Your task to perform on an android device: turn off wifi Image 0: 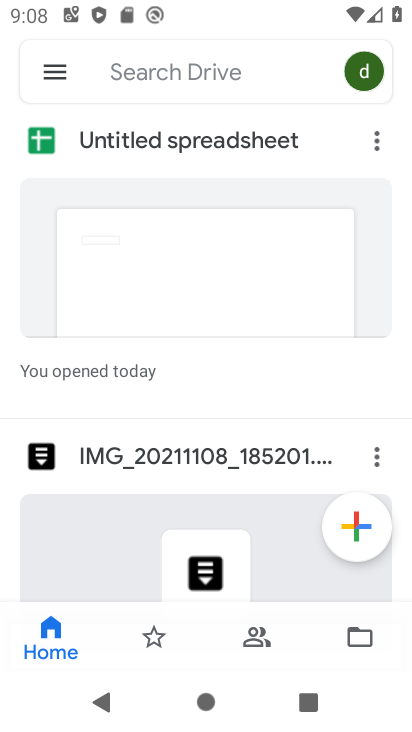
Step 0: press home button
Your task to perform on an android device: turn off wifi Image 1: 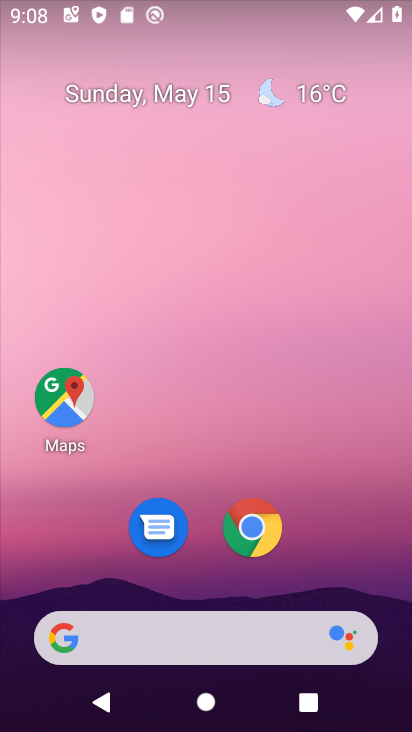
Step 1: drag from (372, 593) to (340, 14)
Your task to perform on an android device: turn off wifi Image 2: 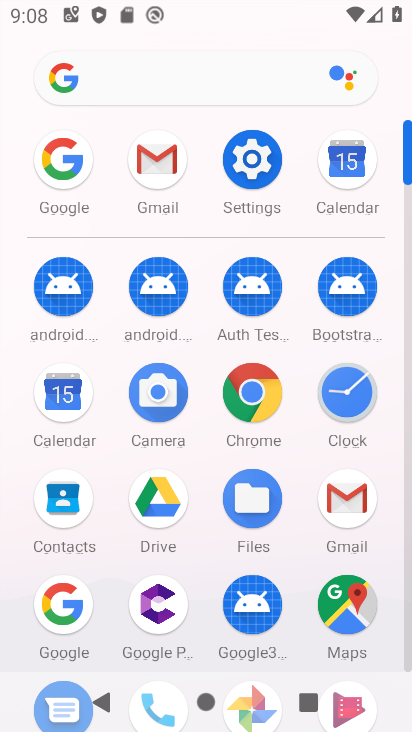
Step 2: click (246, 160)
Your task to perform on an android device: turn off wifi Image 3: 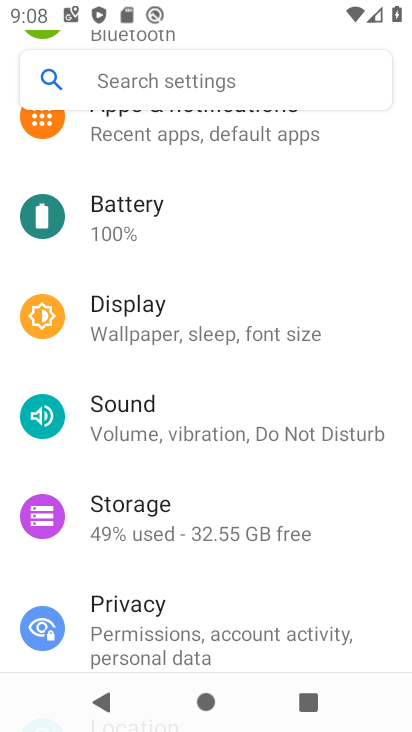
Step 3: drag from (395, 235) to (354, 604)
Your task to perform on an android device: turn off wifi Image 4: 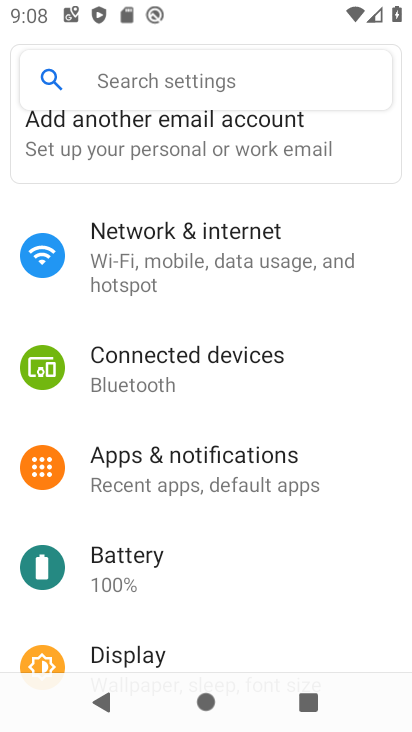
Step 4: click (144, 260)
Your task to perform on an android device: turn off wifi Image 5: 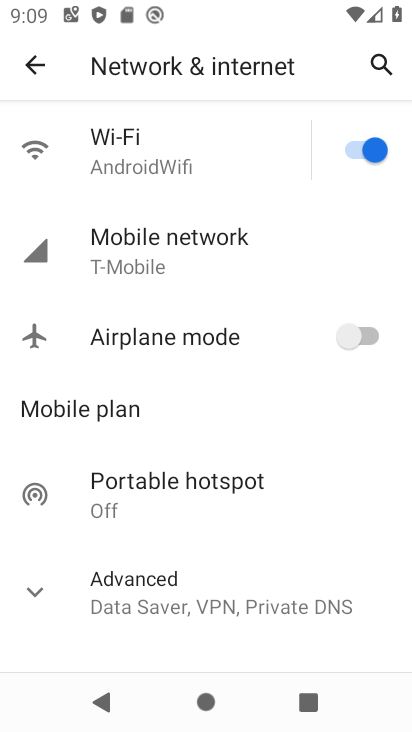
Step 5: click (366, 148)
Your task to perform on an android device: turn off wifi Image 6: 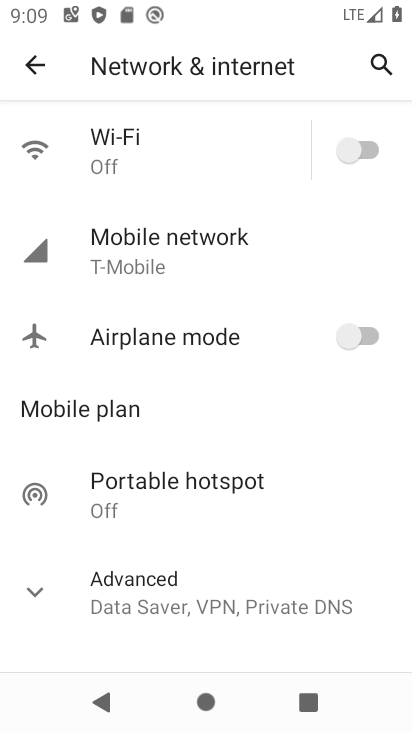
Step 6: task complete